Your task to perform on an android device: Search for Mexican restaurants on Maps Image 0: 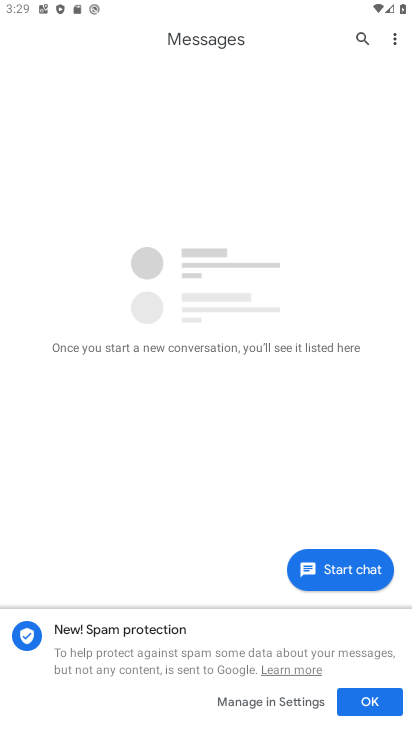
Step 0: press back button
Your task to perform on an android device: Search for Mexican restaurants on Maps Image 1: 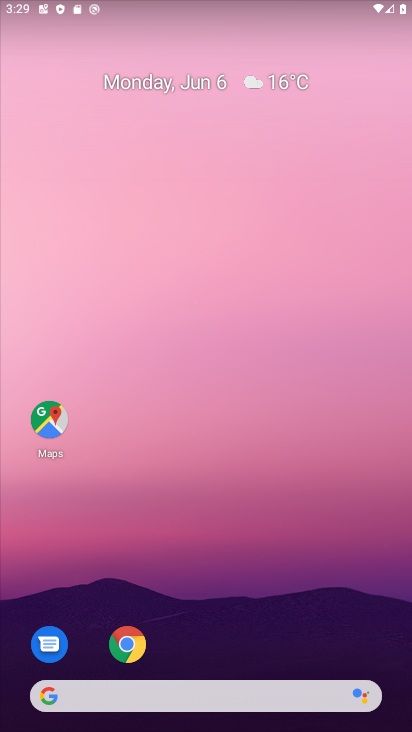
Step 1: drag from (240, 595) to (192, 28)
Your task to perform on an android device: Search for Mexican restaurants on Maps Image 2: 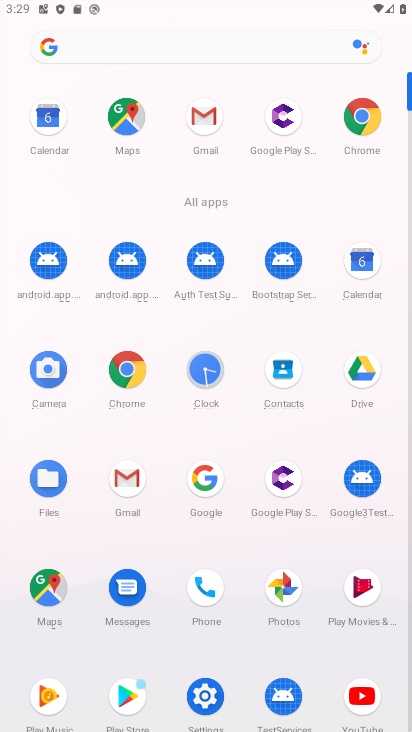
Step 2: drag from (20, 579) to (9, 242)
Your task to perform on an android device: Search for Mexican restaurants on Maps Image 3: 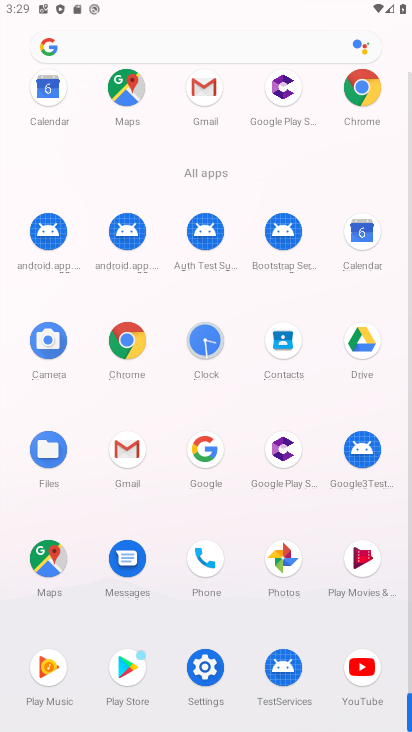
Step 3: click (45, 554)
Your task to perform on an android device: Search for Mexican restaurants on Maps Image 4: 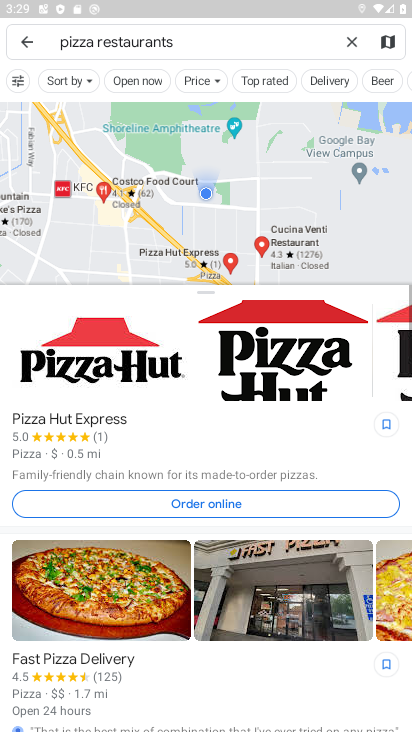
Step 4: click (353, 38)
Your task to perform on an android device: Search for Mexican restaurants on Maps Image 5: 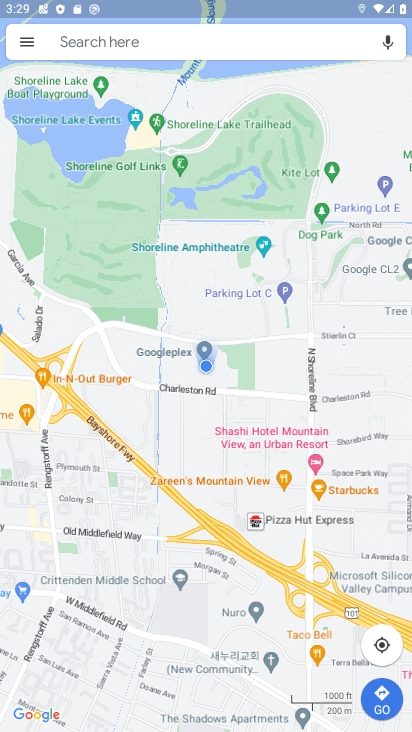
Step 5: click (208, 36)
Your task to perform on an android device: Search for Mexican restaurants on Maps Image 6: 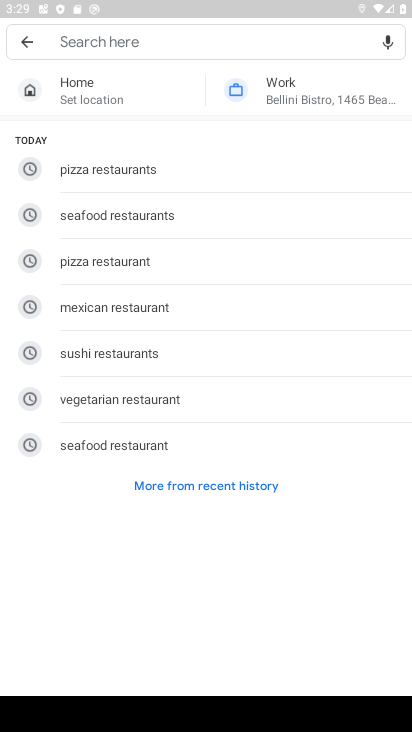
Step 6: click (125, 309)
Your task to perform on an android device: Search for Mexican restaurants on Maps Image 7: 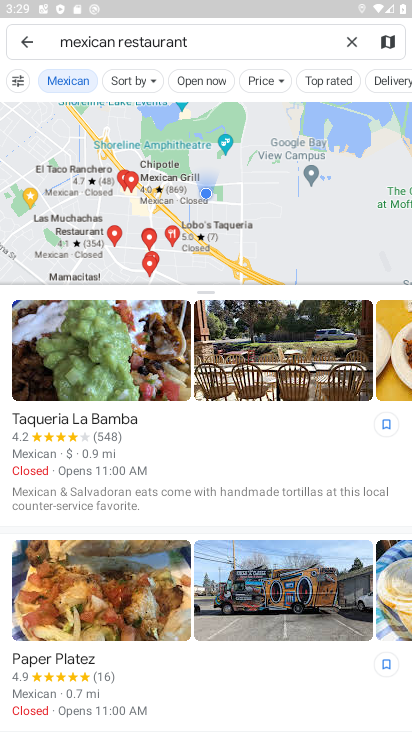
Step 7: task complete